Your task to perform on an android device: turn on data saver in the chrome app Image 0: 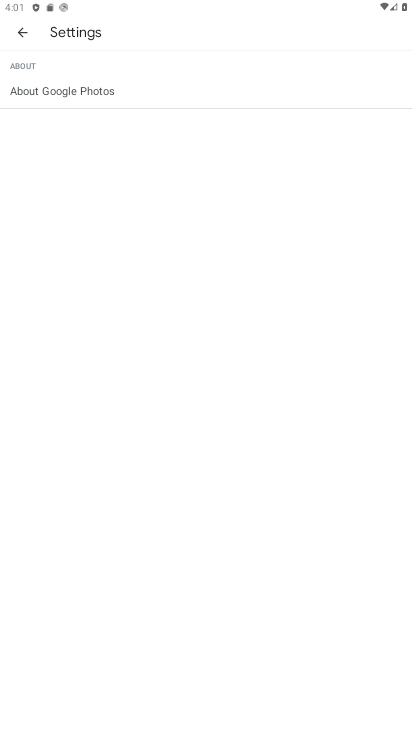
Step 0: click (34, 32)
Your task to perform on an android device: turn on data saver in the chrome app Image 1: 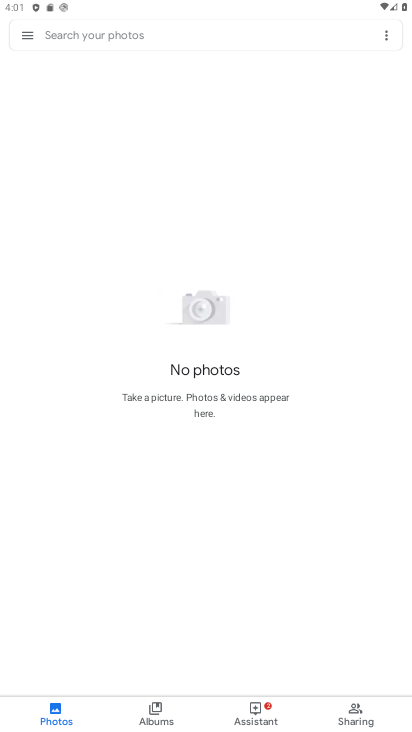
Step 1: press back button
Your task to perform on an android device: turn on data saver in the chrome app Image 2: 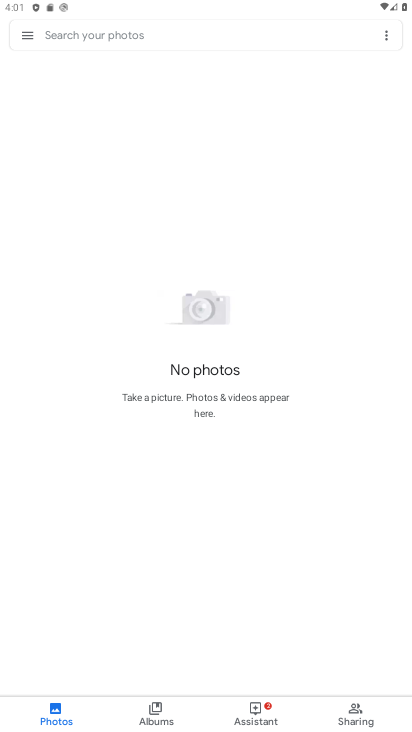
Step 2: press back button
Your task to perform on an android device: turn on data saver in the chrome app Image 3: 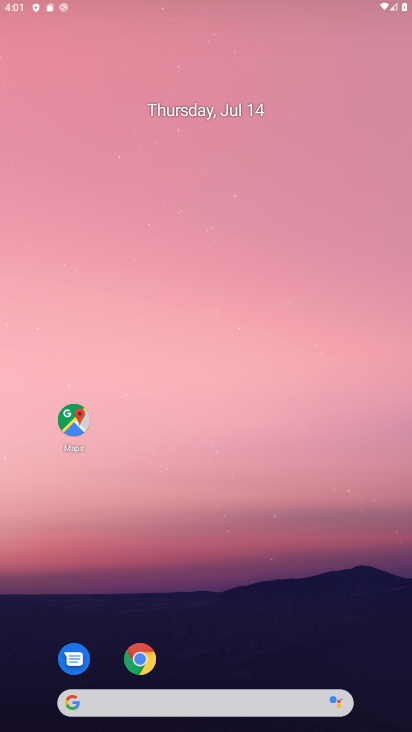
Step 3: press back button
Your task to perform on an android device: turn on data saver in the chrome app Image 4: 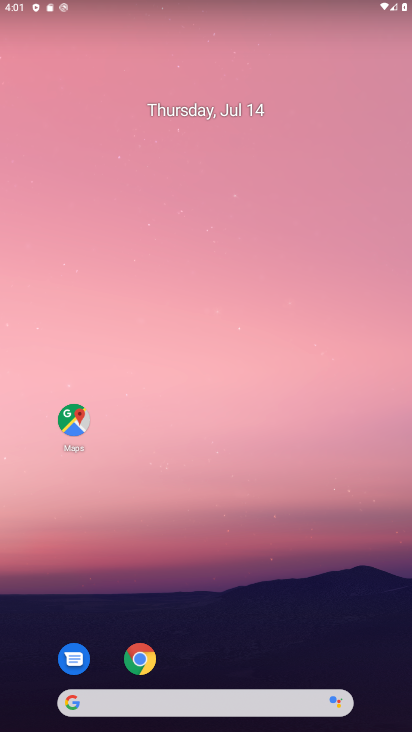
Step 4: drag from (242, 668) to (148, 176)
Your task to perform on an android device: turn on data saver in the chrome app Image 5: 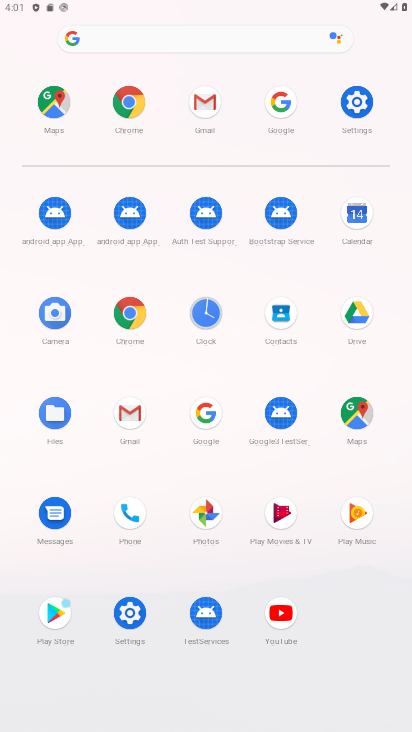
Step 5: click (127, 321)
Your task to perform on an android device: turn on data saver in the chrome app Image 6: 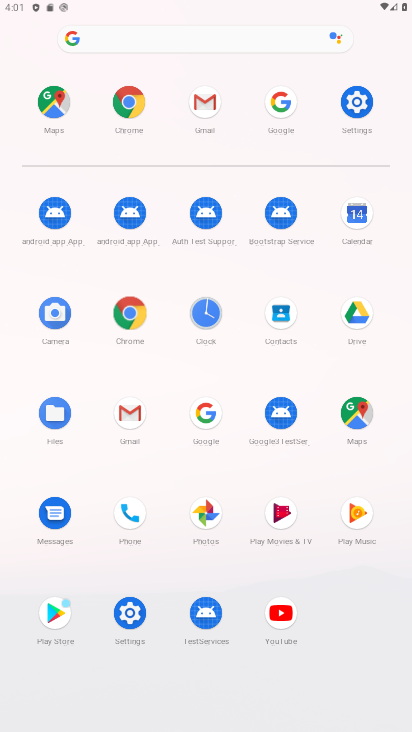
Step 6: click (129, 319)
Your task to perform on an android device: turn on data saver in the chrome app Image 7: 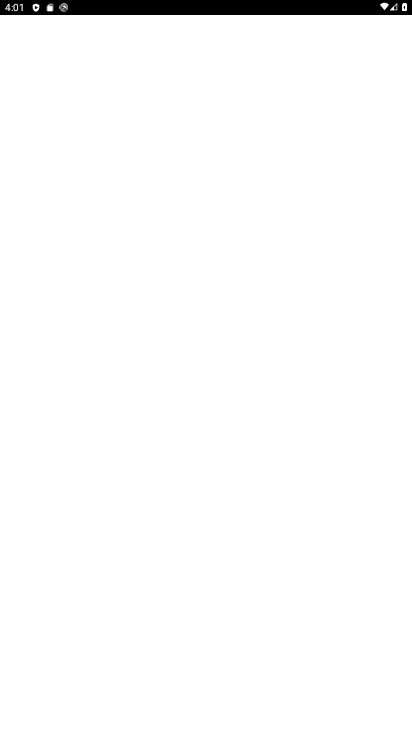
Step 7: click (130, 317)
Your task to perform on an android device: turn on data saver in the chrome app Image 8: 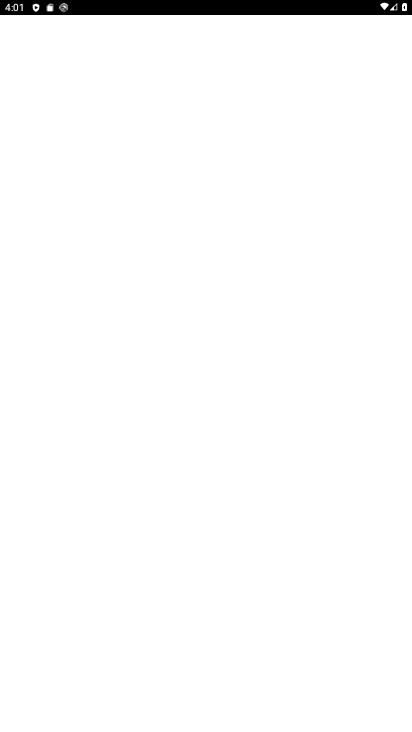
Step 8: click (130, 317)
Your task to perform on an android device: turn on data saver in the chrome app Image 9: 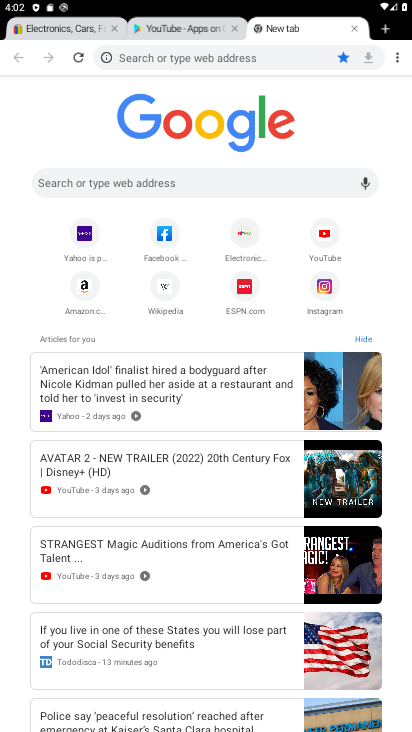
Step 9: drag from (396, 54) to (277, 262)
Your task to perform on an android device: turn on data saver in the chrome app Image 10: 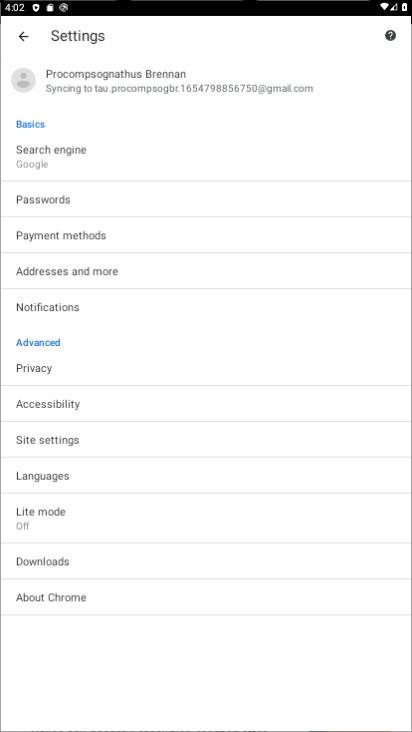
Step 10: click (282, 257)
Your task to perform on an android device: turn on data saver in the chrome app Image 11: 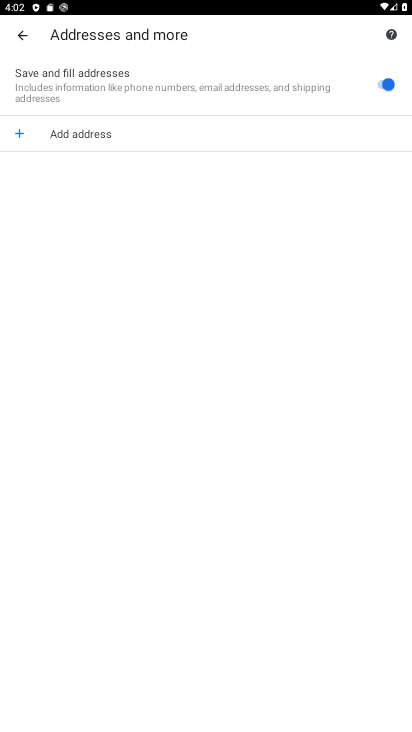
Step 11: click (32, 36)
Your task to perform on an android device: turn on data saver in the chrome app Image 12: 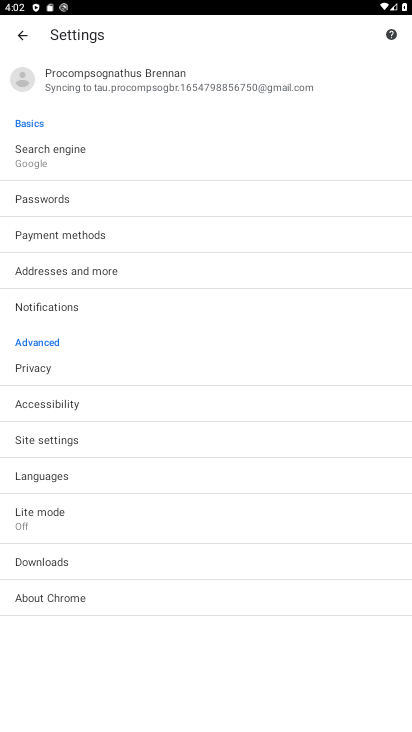
Step 12: click (43, 504)
Your task to perform on an android device: turn on data saver in the chrome app Image 13: 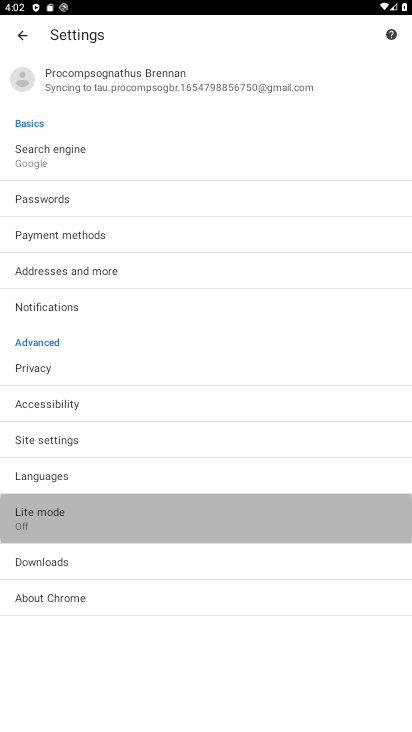
Step 13: click (44, 507)
Your task to perform on an android device: turn on data saver in the chrome app Image 14: 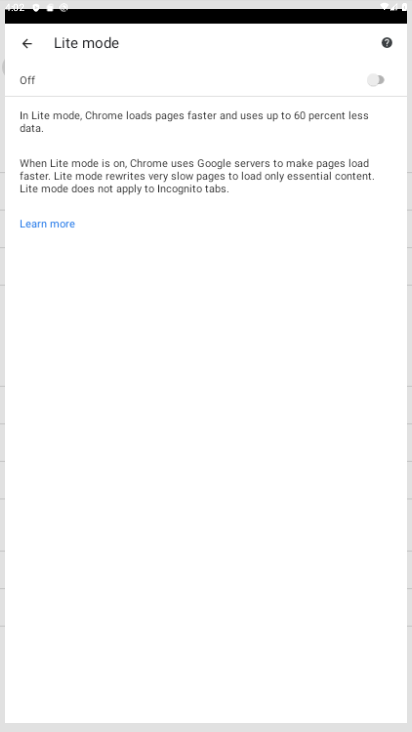
Step 14: click (45, 508)
Your task to perform on an android device: turn on data saver in the chrome app Image 15: 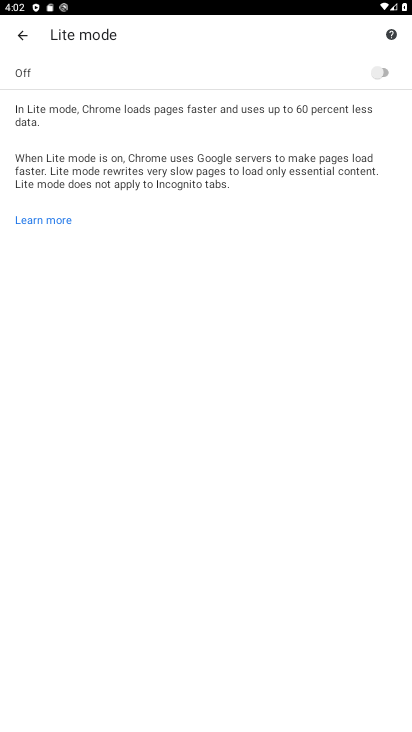
Step 15: click (45, 508)
Your task to perform on an android device: turn on data saver in the chrome app Image 16: 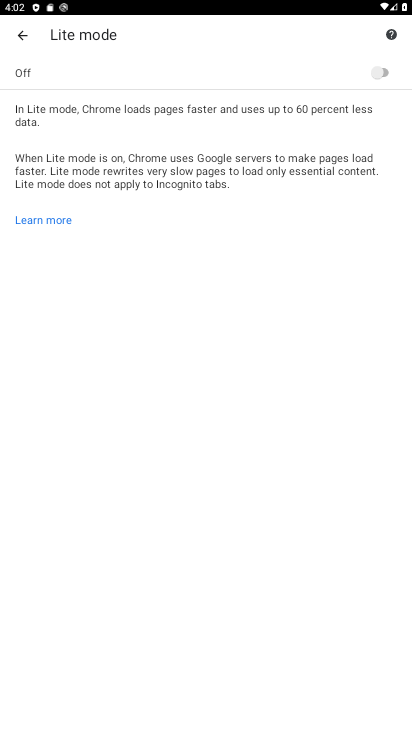
Step 16: click (376, 82)
Your task to perform on an android device: turn on data saver in the chrome app Image 17: 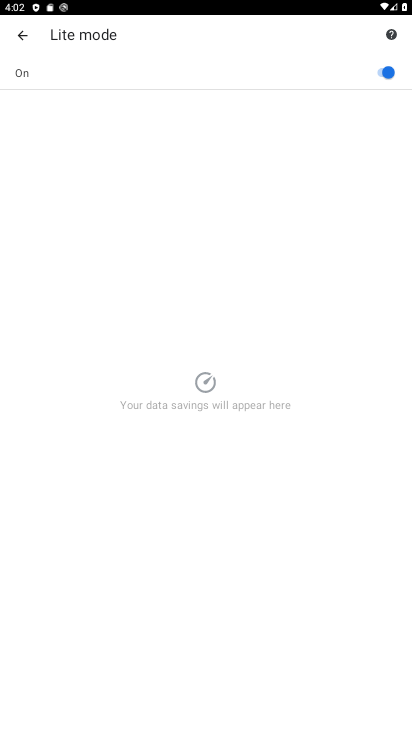
Step 17: task complete